Your task to perform on an android device: Go to display settings Image 0: 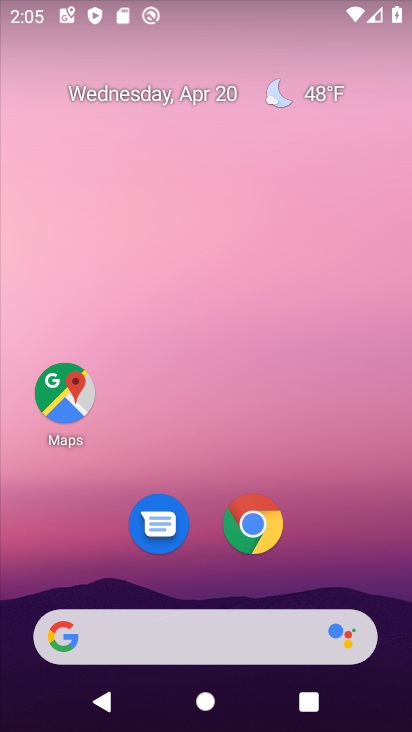
Step 0: drag from (332, 537) to (278, 94)
Your task to perform on an android device: Go to display settings Image 1: 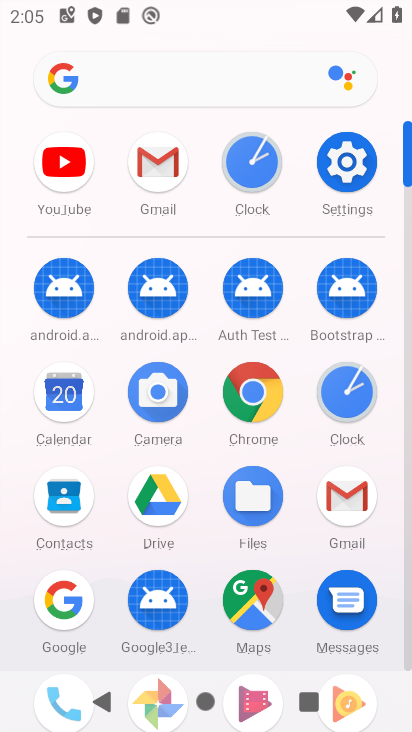
Step 1: click (347, 161)
Your task to perform on an android device: Go to display settings Image 2: 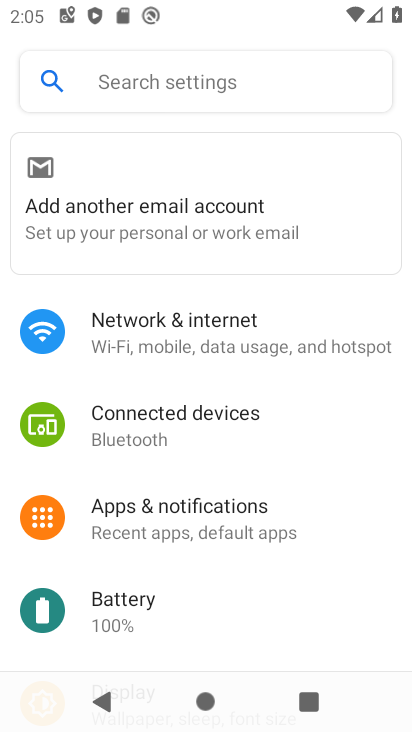
Step 2: drag from (257, 555) to (328, 191)
Your task to perform on an android device: Go to display settings Image 3: 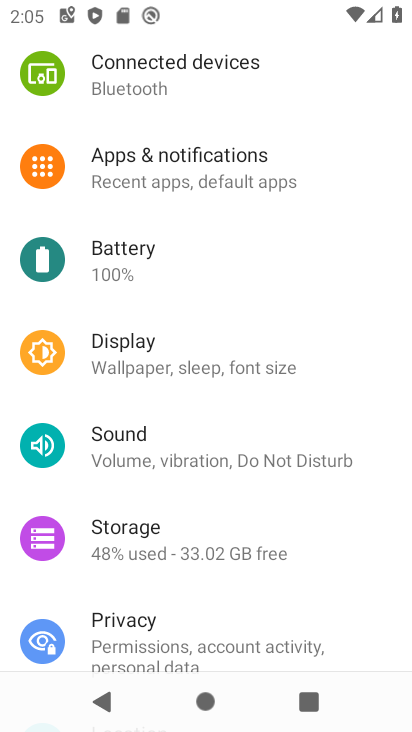
Step 3: click (226, 341)
Your task to perform on an android device: Go to display settings Image 4: 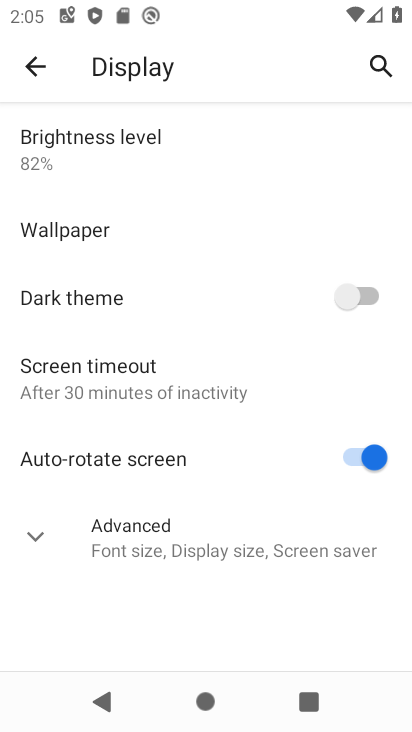
Step 4: task complete